Your task to perform on an android device: Go to Google Image 0: 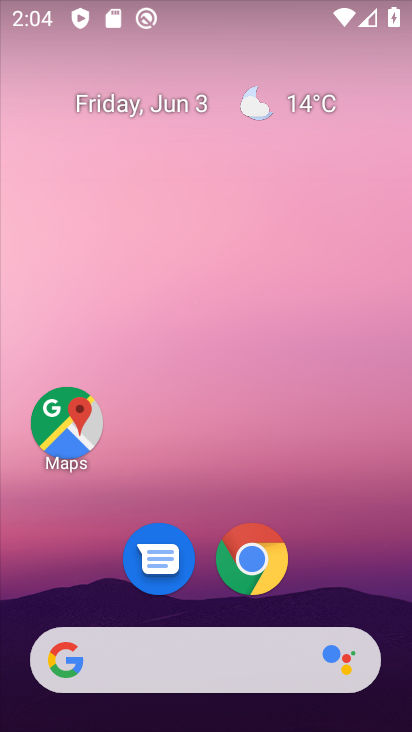
Step 0: drag from (181, 598) to (158, 3)
Your task to perform on an android device: Go to Google Image 1: 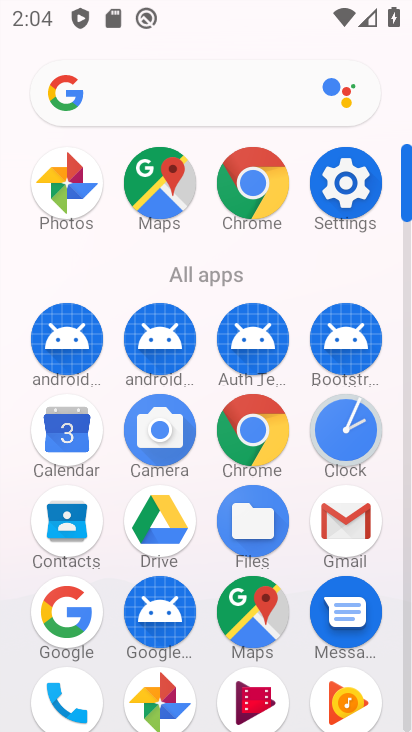
Step 1: click (70, 618)
Your task to perform on an android device: Go to Google Image 2: 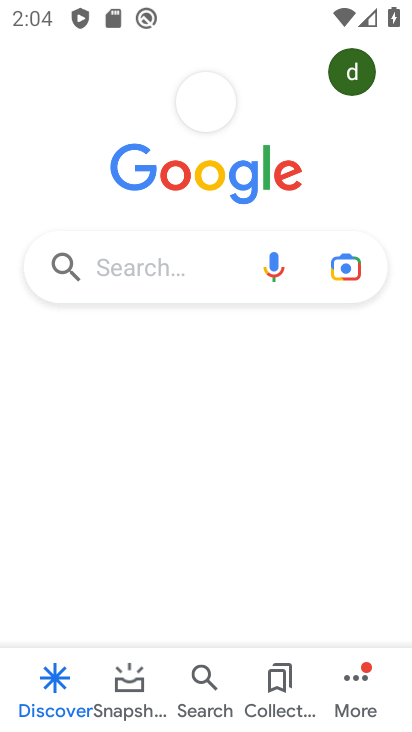
Step 2: task complete